Your task to perform on an android device: choose inbox layout in the gmail app Image 0: 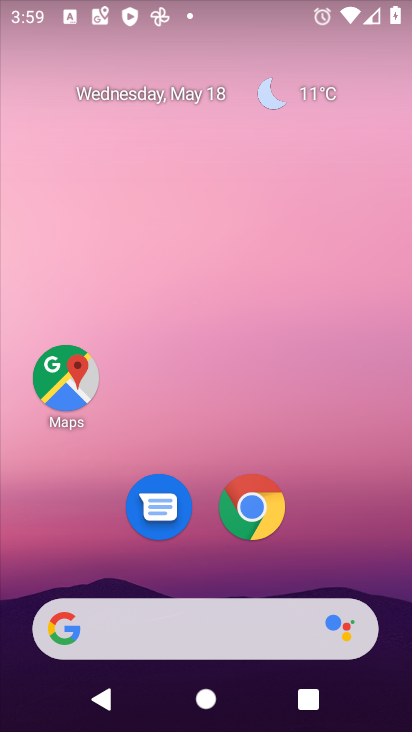
Step 0: drag from (399, 627) to (346, 127)
Your task to perform on an android device: choose inbox layout in the gmail app Image 1: 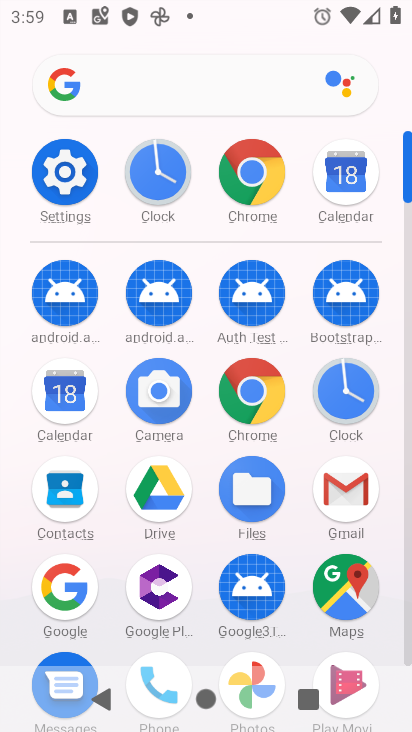
Step 1: click (410, 645)
Your task to perform on an android device: choose inbox layout in the gmail app Image 2: 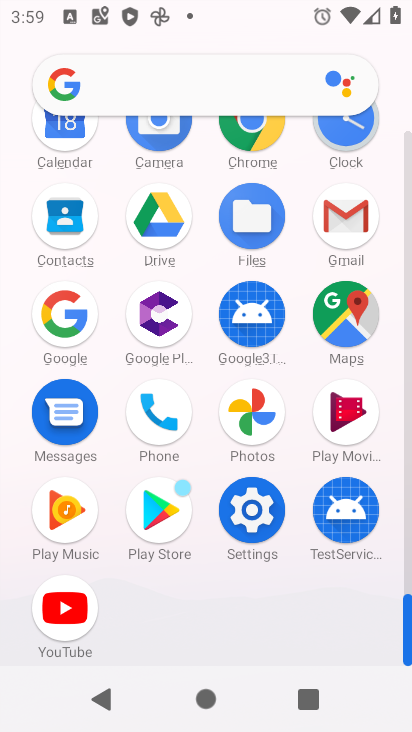
Step 2: click (344, 218)
Your task to perform on an android device: choose inbox layout in the gmail app Image 3: 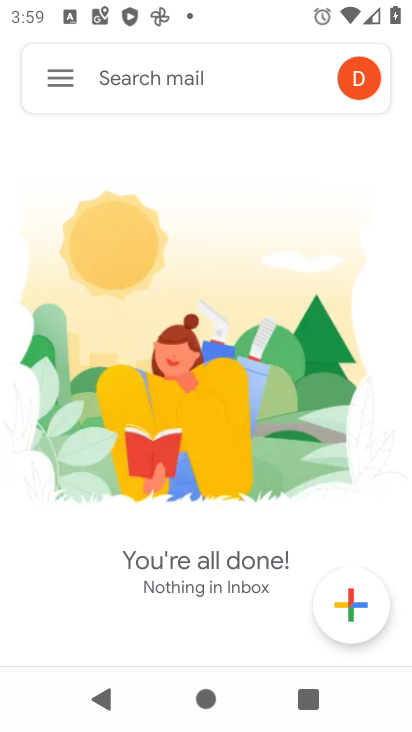
Step 3: click (59, 82)
Your task to perform on an android device: choose inbox layout in the gmail app Image 4: 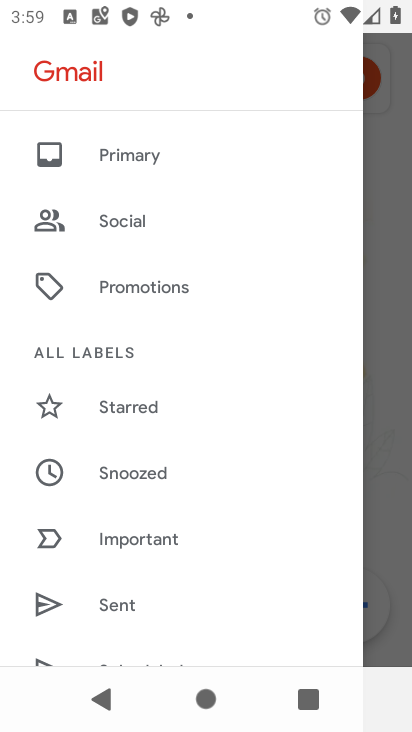
Step 4: drag from (215, 540) to (210, 143)
Your task to perform on an android device: choose inbox layout in the gmail app Image 5: 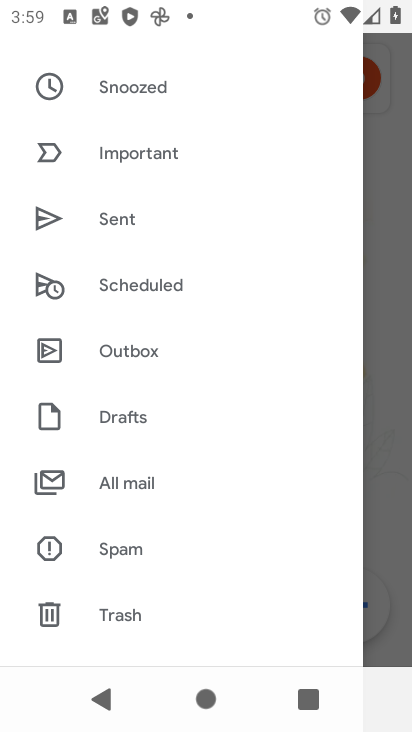
Step 5: drag from (165, 582) to (175, 194)
Your task to perform on an android device: choose inbox layout in the gmail app Image 6: 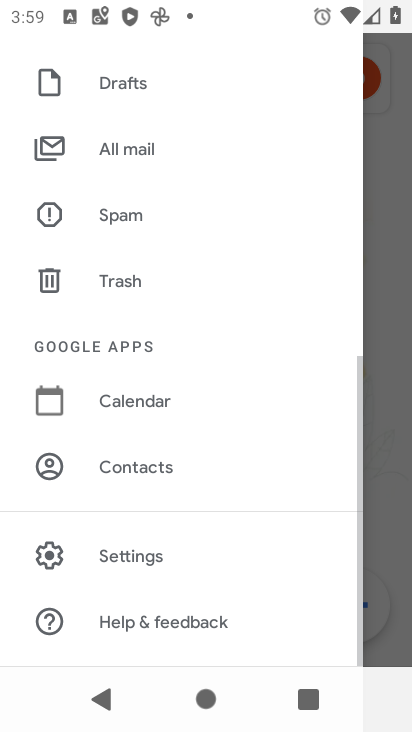
Step 6: click (128, 557)
Your task to perform on an android device: choose inbox layout in the gmail app Image 7: 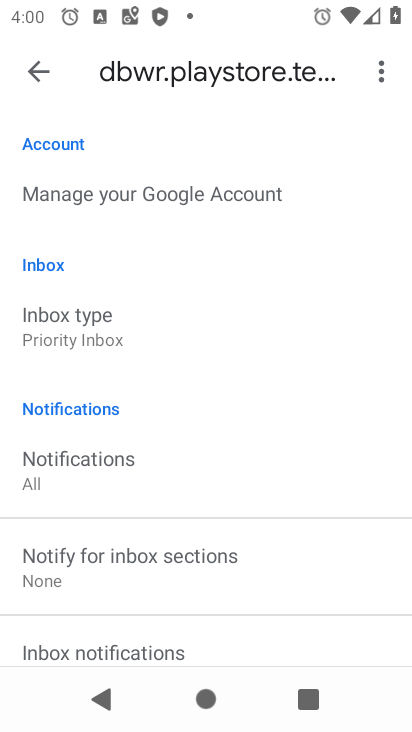
Step 7: click (59, 323)
Your task to perform on an android device: choose inbox layout in the gmail app Image 8: 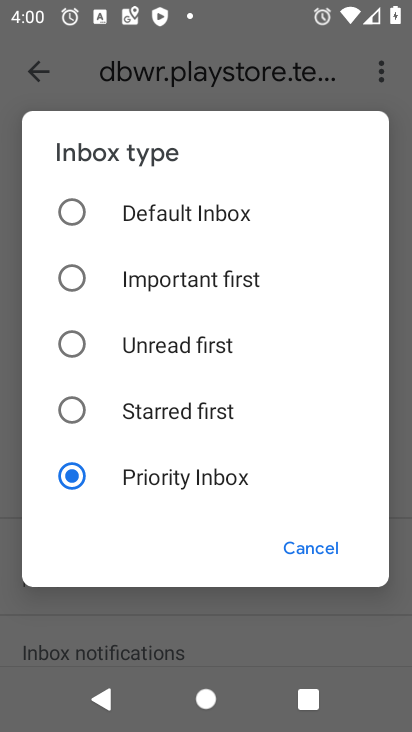
Step 8: click (74, 211)
Your task to perform on an android device: choose inbox layout in the gmail app Image 9: 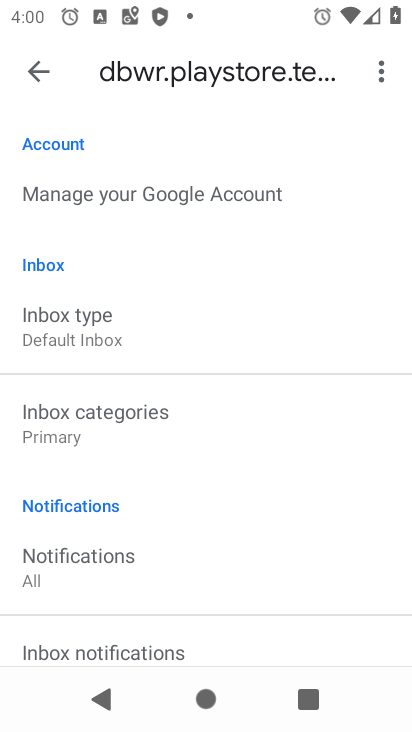
Step 9: task complete